Your task to perform on an android device: Open Google Chrome and click the shortcut for Amazon.com Image 0: 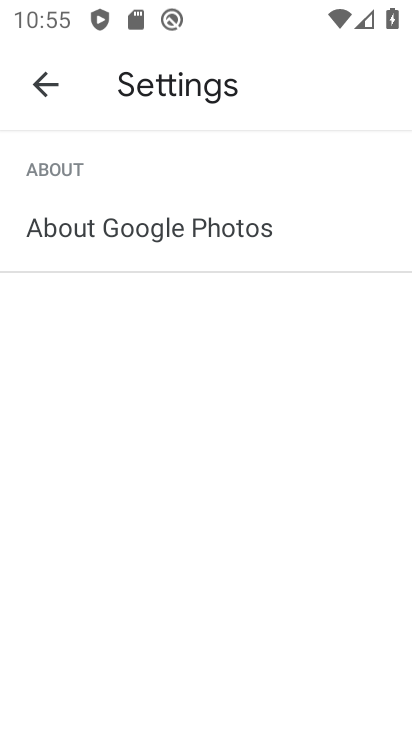
Step 0: press home button
Your task to perform on an android device: Open Google Chrome and click the shortcut for Amazon.com Image 1: 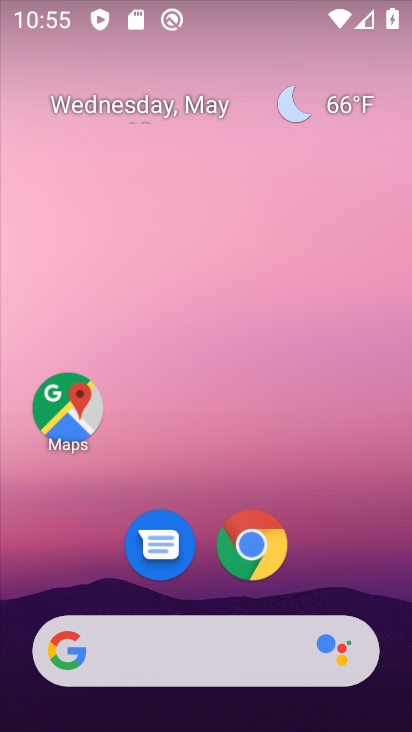
Step 1: click (251, 538)
Your task to perform on an android device: Open Google Chrome and click the shortcut for Amazon.com Image 2: 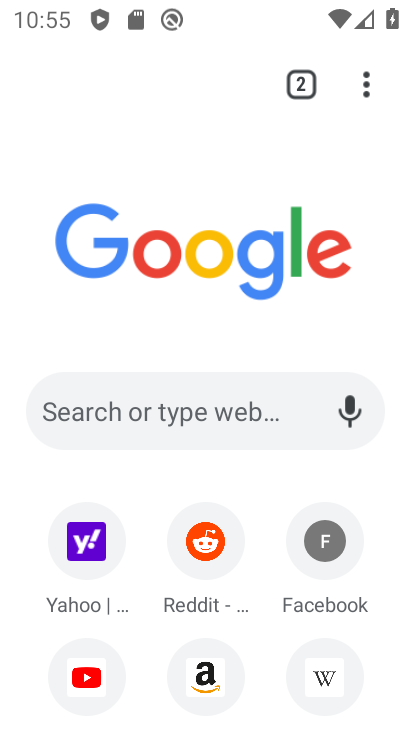
Step 2: click (217, 677)
Your task to perform on an android device: Open Google Chrome and click the shortcut for Amazon.com Image 3: 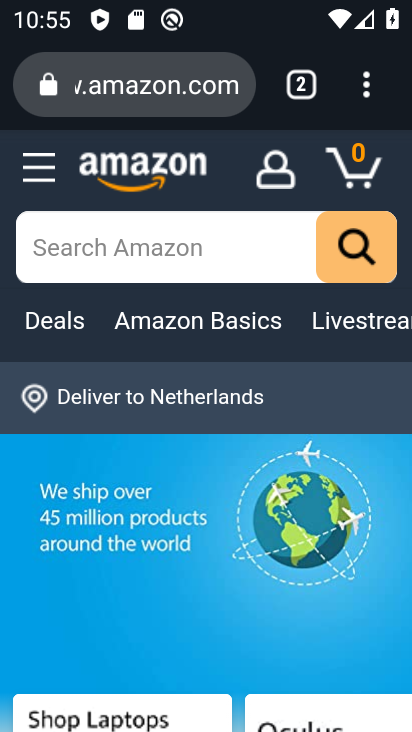
Step 3: task complete